Your task to perform on an android device: check google app version Image 0: 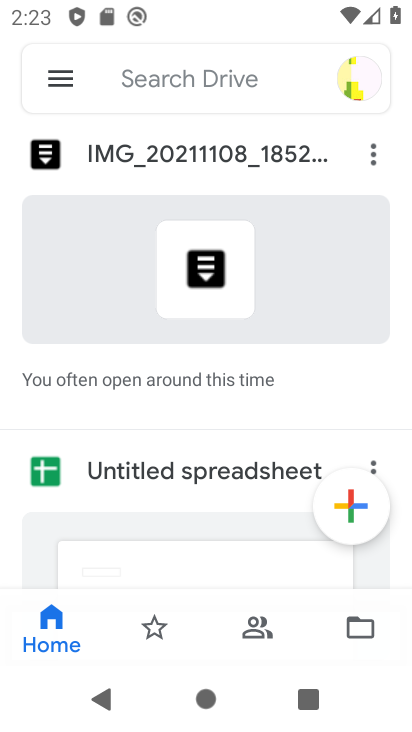
Step 0: press home button
Your task to perform on an android device: check google app version Image 1: 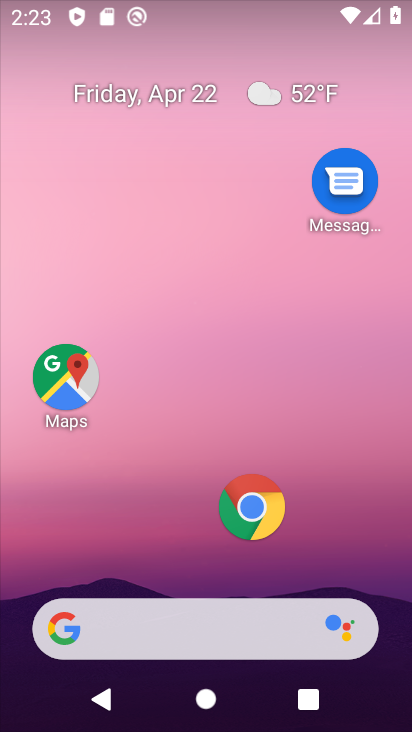
Step 1: click (61, 632)
Your task to perform on an android device: check google app version Image 2: 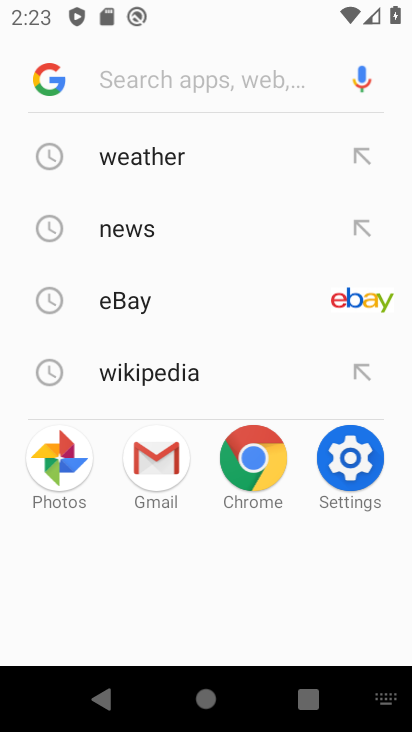
Step 2: click (59, 80)
Your task to perform on an android device: check google app version Image 3: 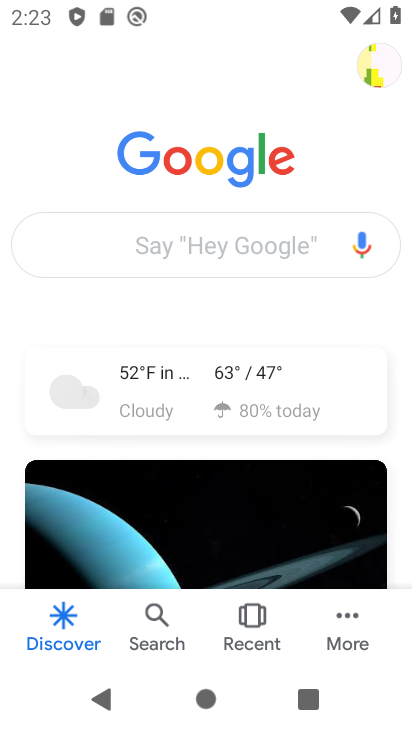
Step 3: click (346, 621)
Your task to perform on an android device: check google app version Image 4: 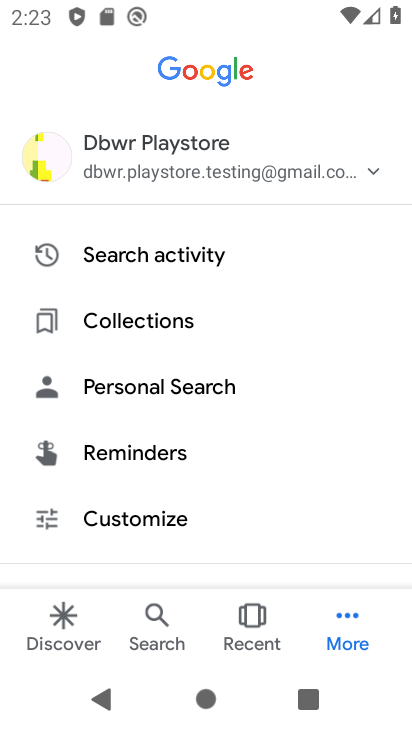
Step 4: drag from (123, 533) to (157, 210)
Your task to perform on an android device: check google app version Image 5: 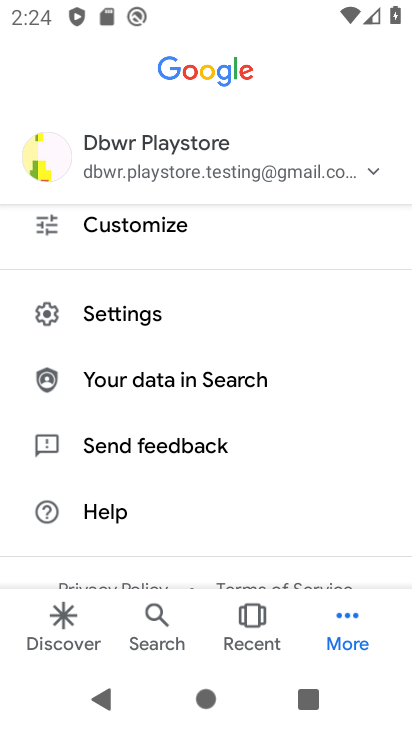
Step 5: click (120, 313)
Your task to perform on an android device: check google app version Image 6: 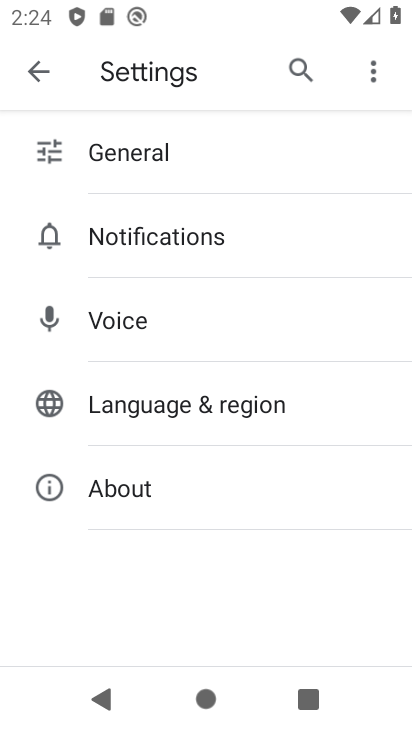
Step 6: click (100, 493)
Your task to perform on an android device: check google app version Image 7: 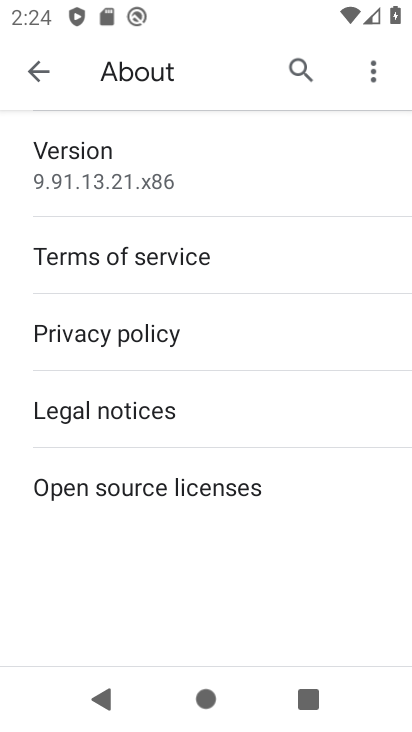
Step 7: task complete